Your task to perform on an android device: change the clock display to show seconds Image 0: 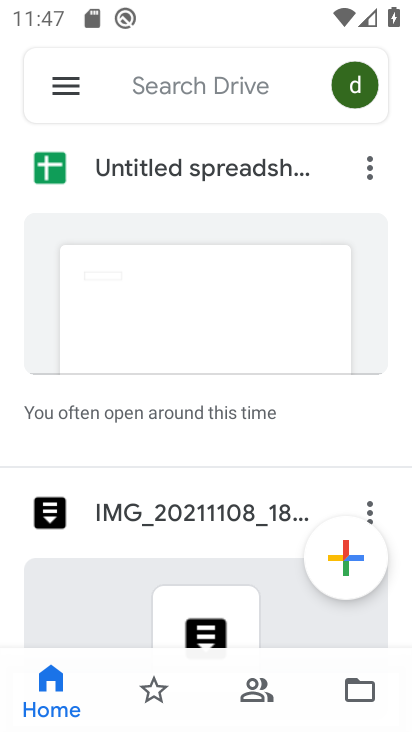
Step 0: press home button
Your task to perform on an android device: change the clock display to show seconds Image 1: 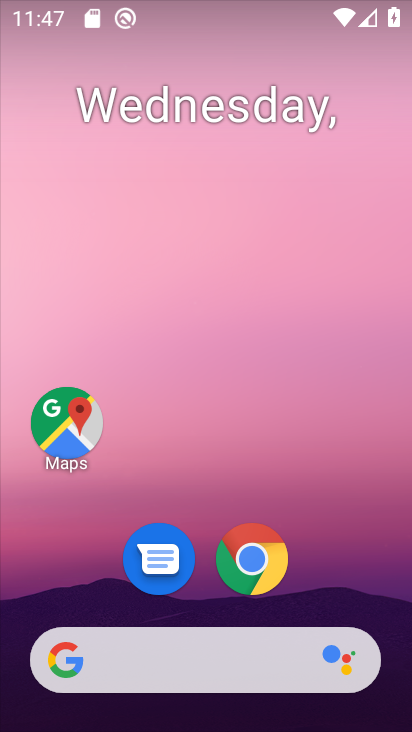
Step 1: drag from (80, 581) to (211, 151)
Your task to perform on an android device: change the clock display to show seconds Image 2: 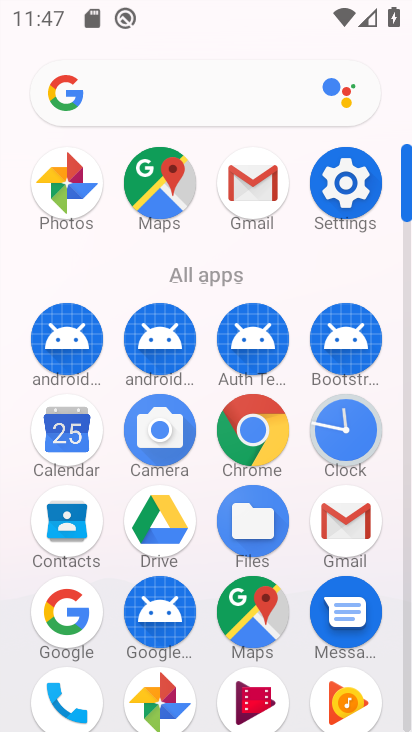
Step 2: click (359, 415)
Your task to perform on an android device: change the clock display to show seconds Image 3: 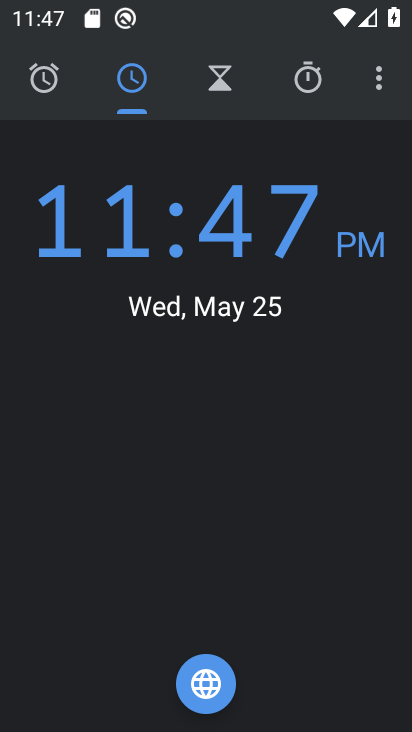
Step 3: click (378, 63)
Your task to perform on an android device: change the clock display to show seconds Image 4: 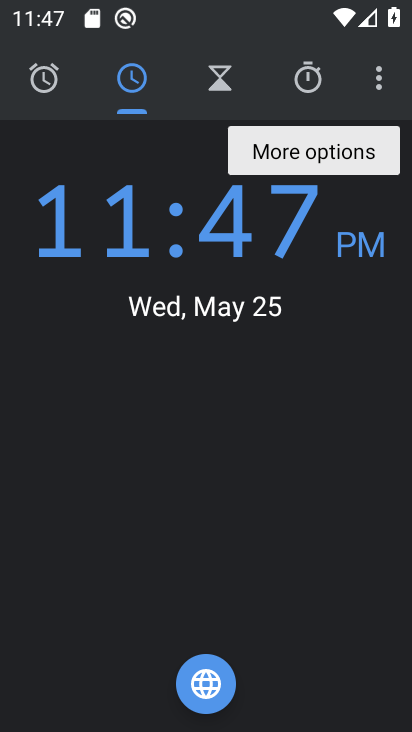
Step 4: click (378, 100)
Your task to perform on an android device: change the clock display to show seconds Image 5: 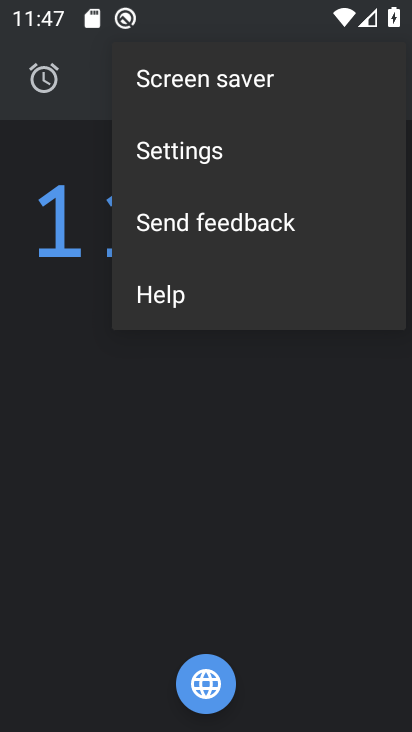
Step 5: click (330, 153)
Your task to perform on an android device: change the clock display to show seconds Image 6: 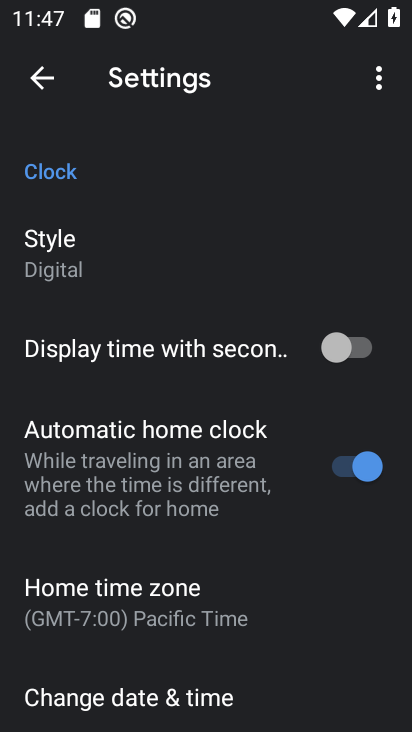
Step 6: click (392, 346)
Your task to perform on an android device: change the clock display to show seconds Image 7: 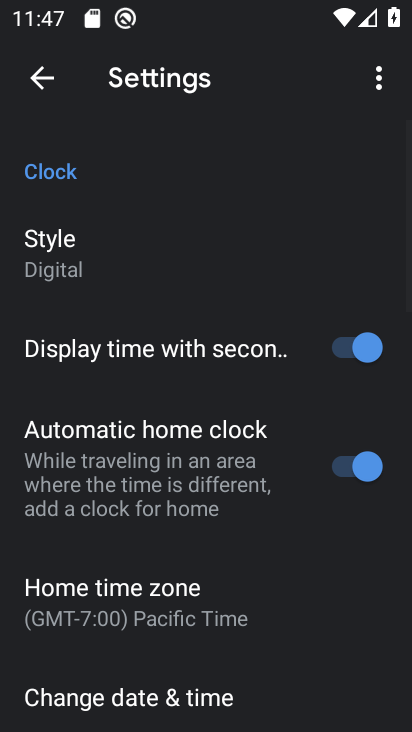
Step 7: task complete